Your task to perform on an android device: toggle location history Image 0: 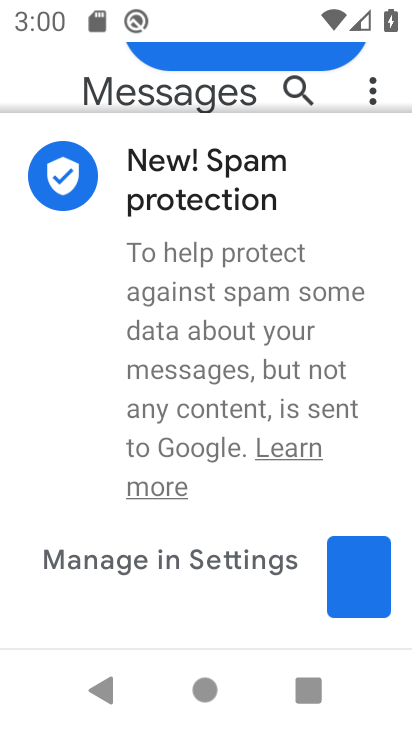
Step 0: press home button
Your task to perform on an android device: toggle location history Image 1: 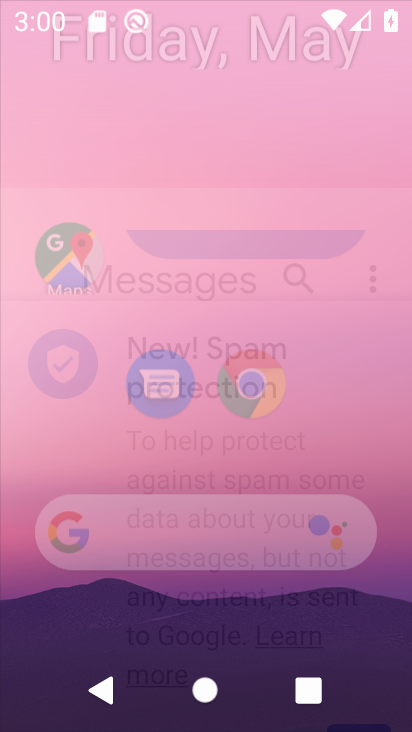
Step 1: drag from (170, 547) to (323, 81)
Your task to perform on an android device: toggle location history Image 2: 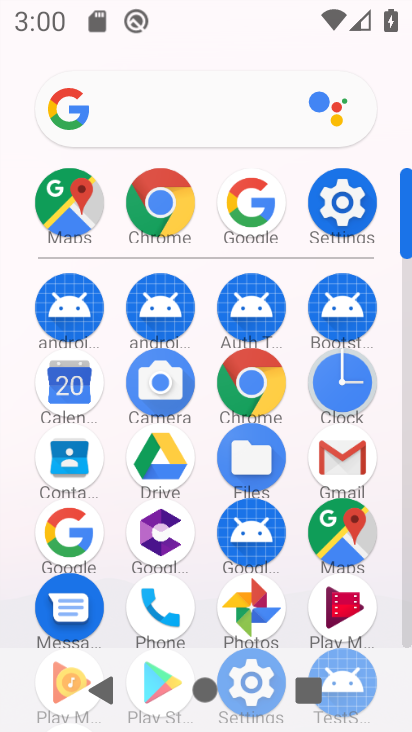
Step 2: click (332, 195)
Your task to perform on an android device: toggle location history Image 3: 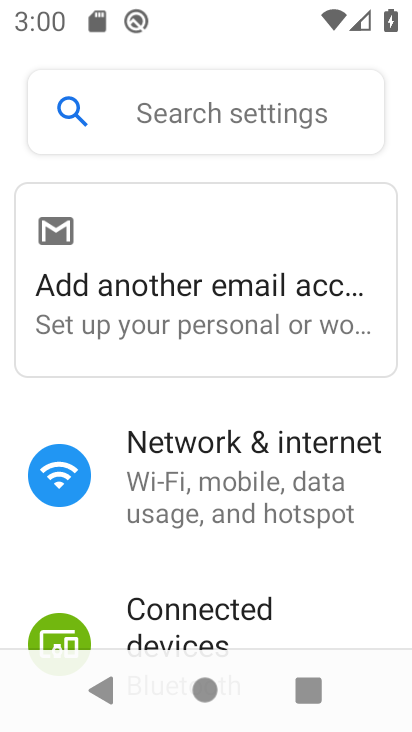
Step 3: drag from (188, 517) to (324, 14)
Your task to perform on an android device: toggle location history Image 4: 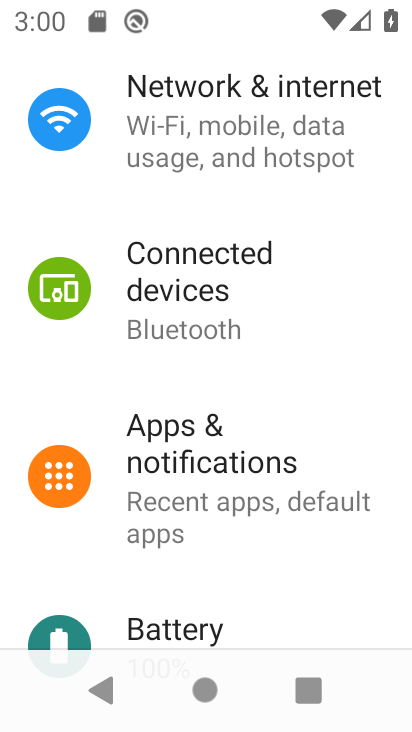
Step 4: drag from (194, 530) to (331, 24)
Your task to perform on an android device: toggle location history Image 5: 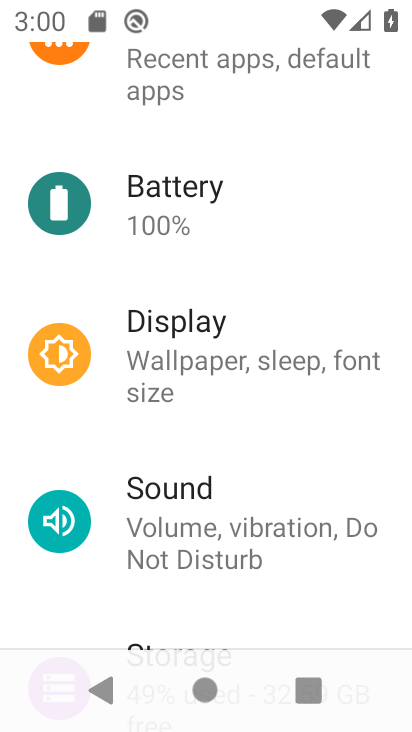
Step 5: drag from (196, 495) to (283, 39)
Your task to perform on an android device: toggle location history Image 6: 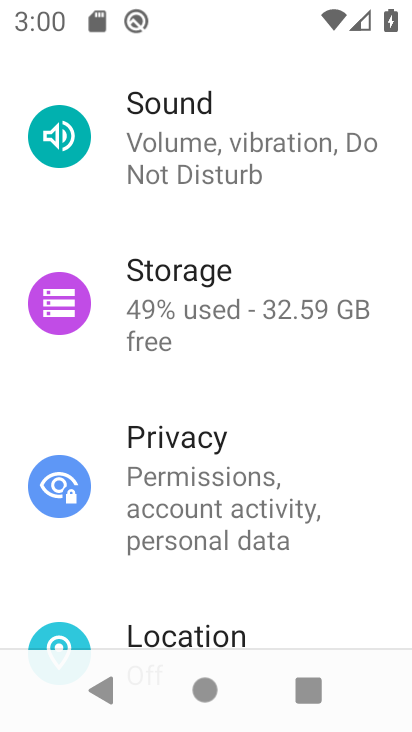
Step 6: drag from (219, 536) to (272, 215)
Your task to perform on an android device: toggle location history Image 7: 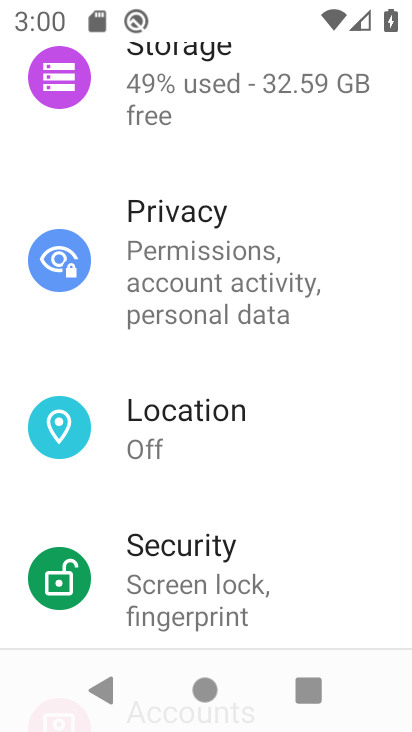
Step 7: click (192, 434)
Your task to perform on an android device: toggle location history Image 8: 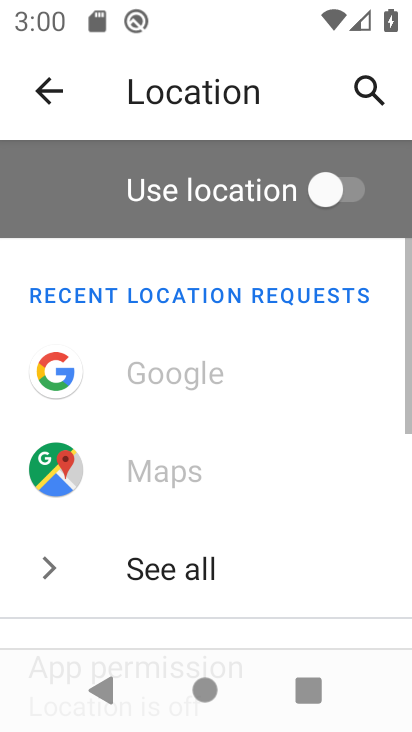
Step 8: drag from (184, 503) to (234, 32)
Your task to perform on an android device: toggle location history Image 9: 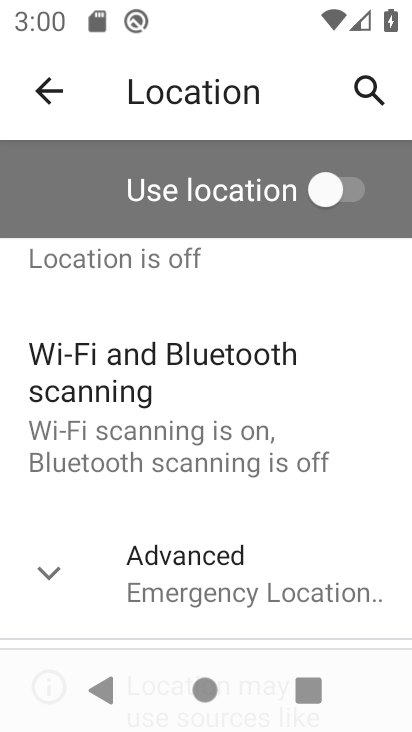
Step 9: click (177, 601)
Your task to perform on an android device: toggle location history Image 10: 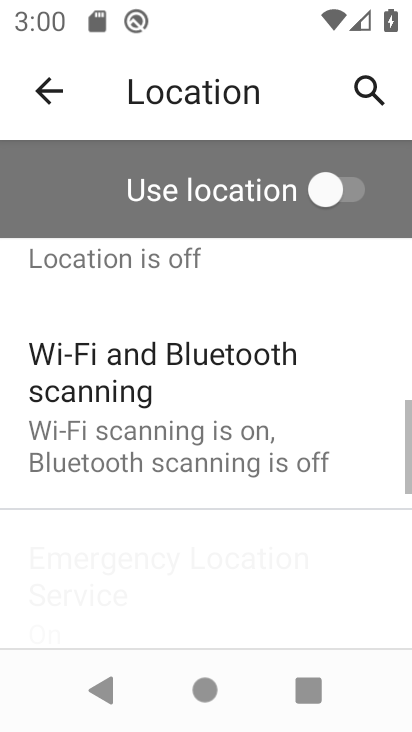
Step 10: drag from (177, 595) to (272, 219)
Your task to perform on an android device: toggle location history Image 11: 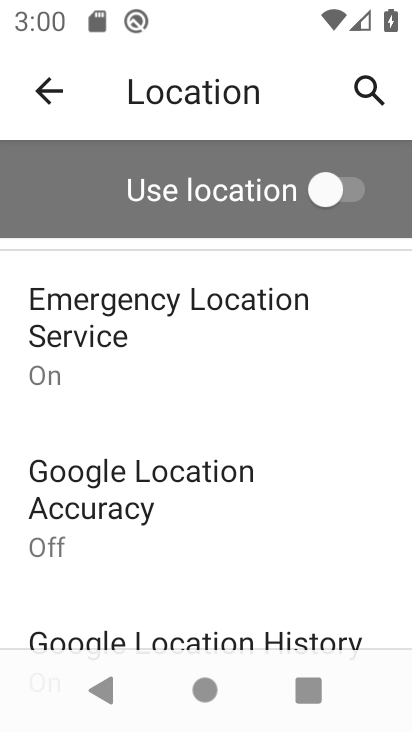
Step 11: drag from (188, 552) to (286, 290)
Your task to perform on an android device: toggle location history Image 12: 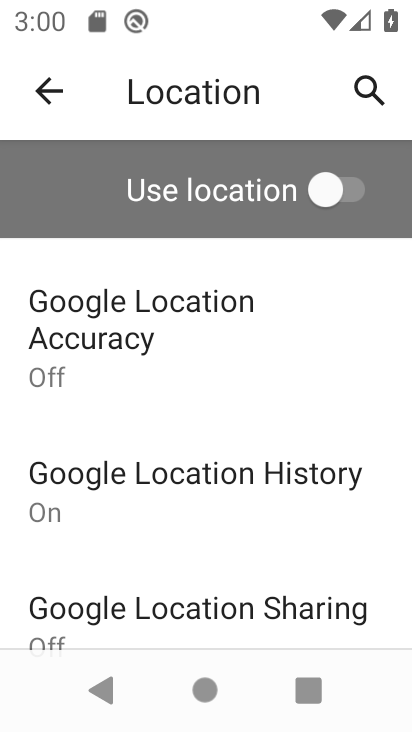
Step 12: click (170, 503)
Your task to perform on an android device: toggle location history Image 13: 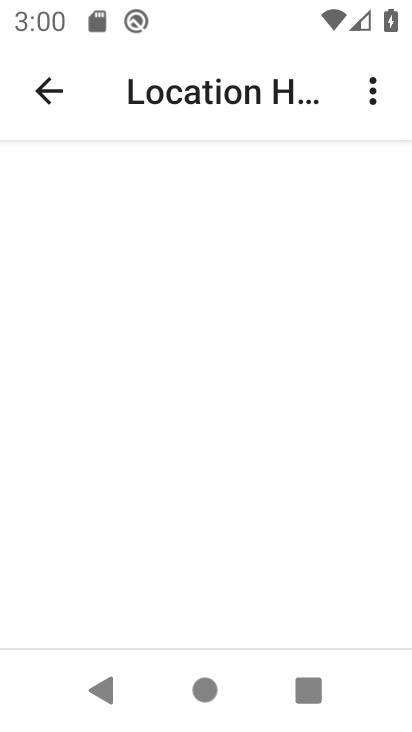
Step 13: drag from (182, 536) to (301, 230)
Your task to perform on an android device: toggle location history Image 14: 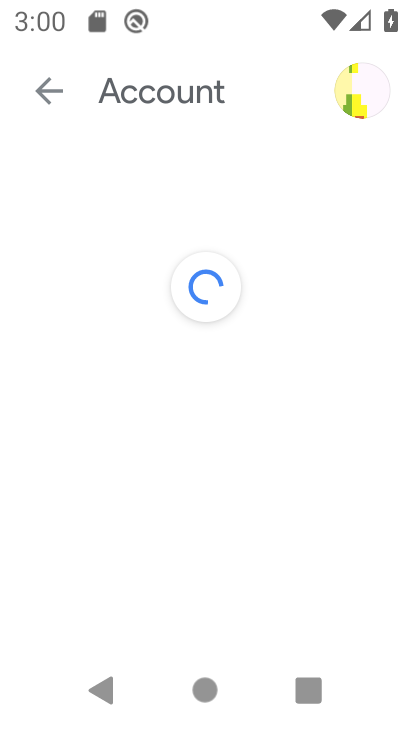
Step 14: drag from (178, 615) to (255, 328)
Your task to perform on an android device: toggle location history Image 15: 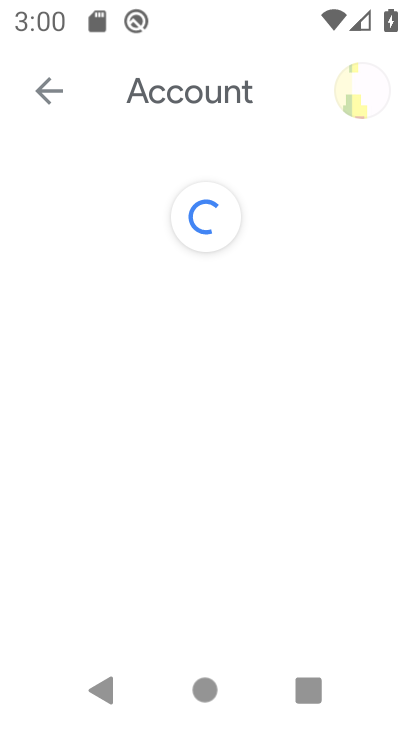
Step 15: drag from (195, 503) to (264, 330)
Your task to perform on an android device: toggle location history Image 16: 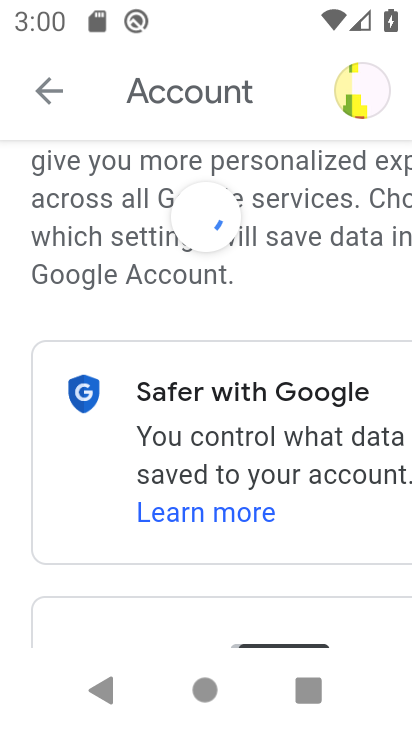
Step 16: drag from (231, 604) to (295, 200)
Your task to perform on an android device: toggle location history Image 17: 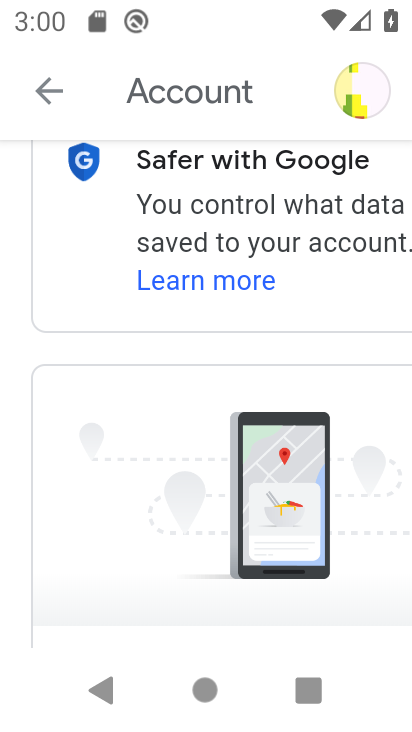
Step 17: drag from (231, 515) to (348, 183)
Your task to perform on an android device: toggle location history Image 18: 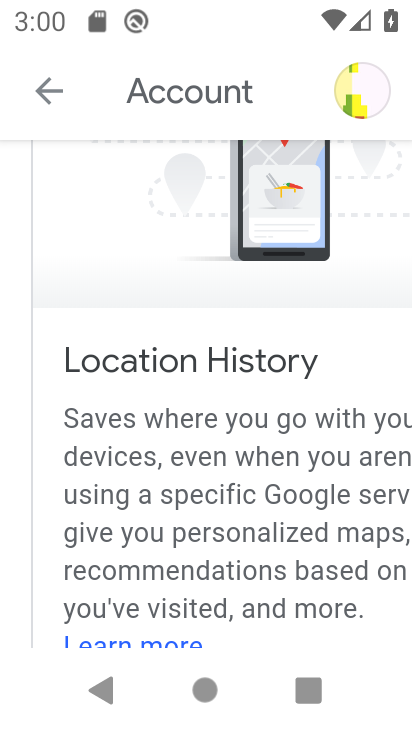
Step 18: drag from (261, 587) to (310, 327)
Your task to perform on an android device: toggle location history Image 19: 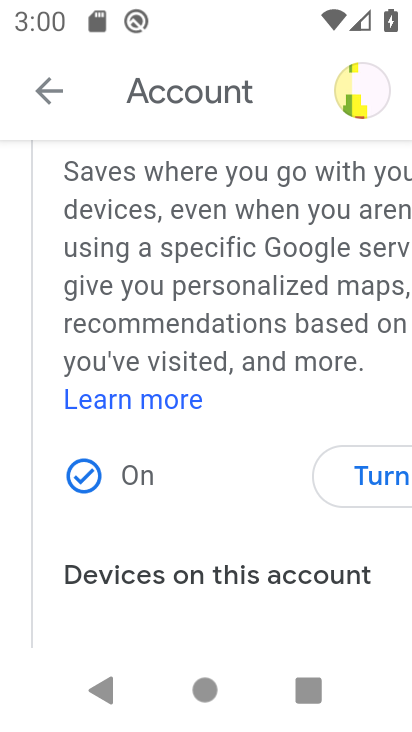
Step 19: click (337, 480)
Your task to perform on an android device: toggle location history Image 20: 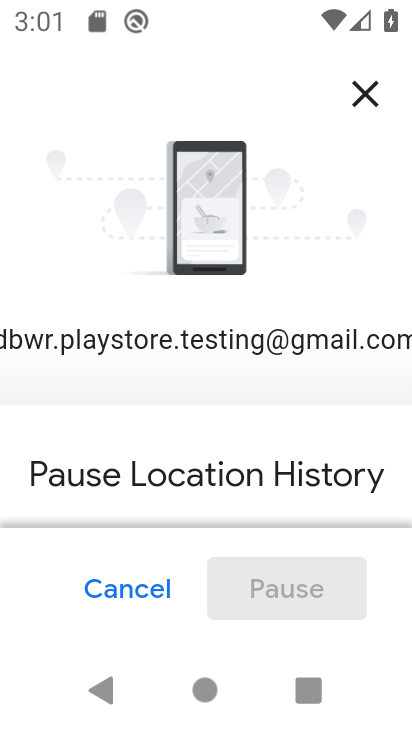
Step 20: drag from (268, 473) to (396, 307)
Your task to perform on an android device: toggle location history Image 21: 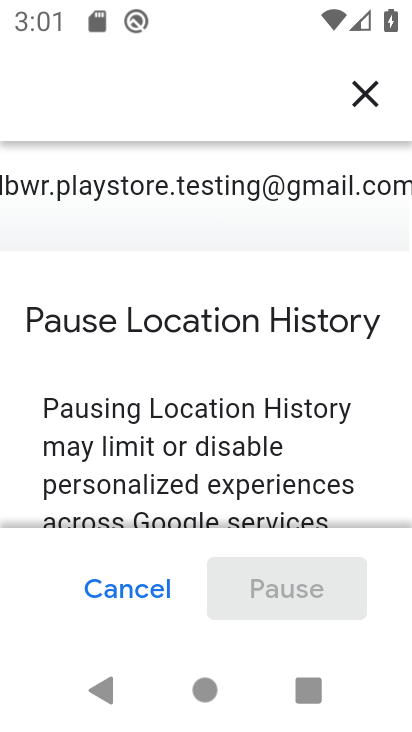
Step 21: drag from (223, 459) to (390, 52)
Your task to perform on an android device: toggle location history Image 22: 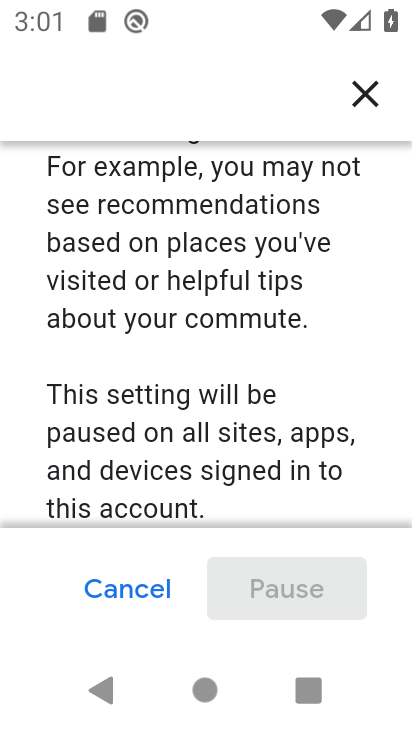
Step 22: drag from (192, 525) to (404, 113)
Your task to perform on an android device: toggle location history Image 23: 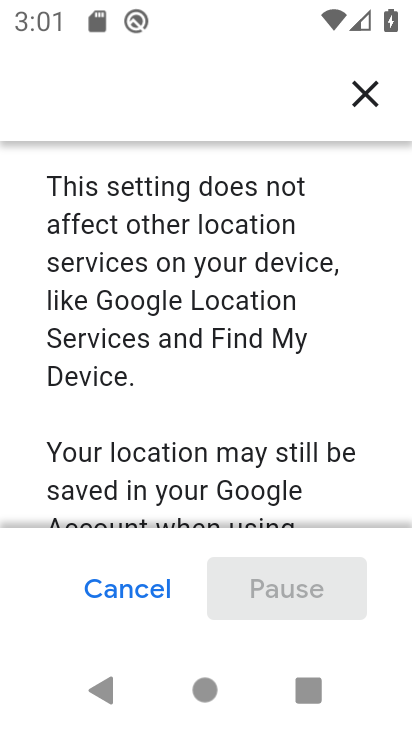
Step 23: drag from (163, 487) to (328, 41)
Your task to perform on an android device: toggle location history Image 24: 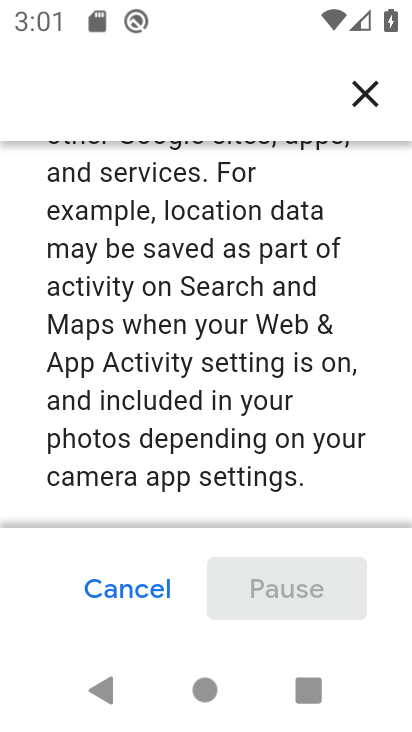
Step 24: drag from (192, 499) to (354, 81)
Your task to perform on an android device: toggle location history Image 25: 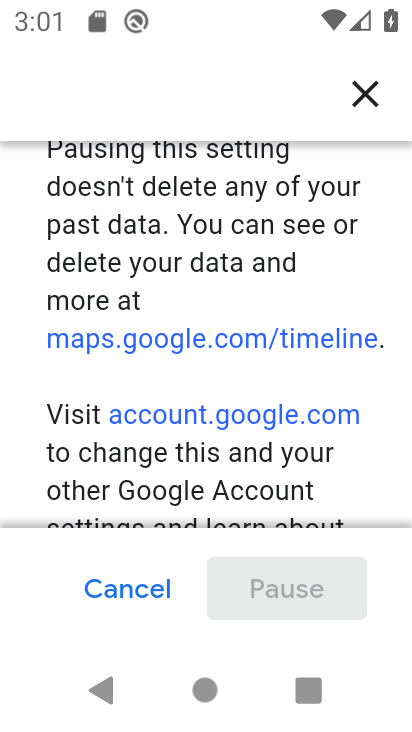
Step 25: drag from (263, 444) to (406, 145)
Your task to perform on an android device: toggle location history Image 26: 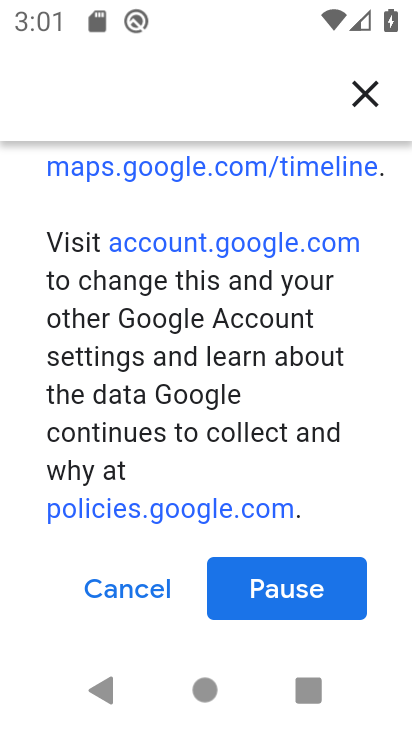
Step 26: click (252, 587)
Your task to perform on an android device: toggle location history Image 27: 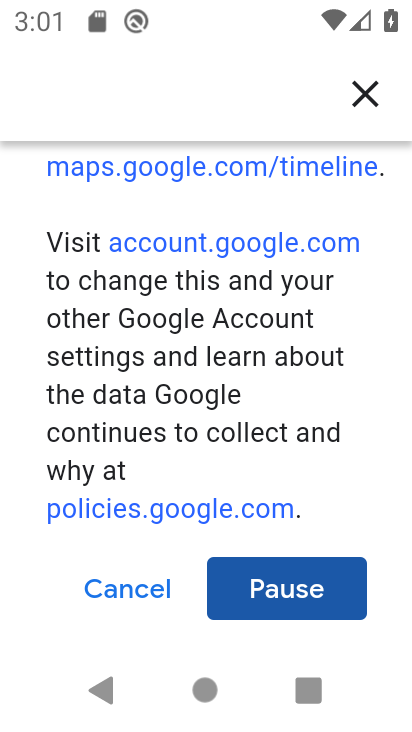
Step 27: task complete